Your task to perform on an android device: What's on my calendar tomorrow? Image 0: 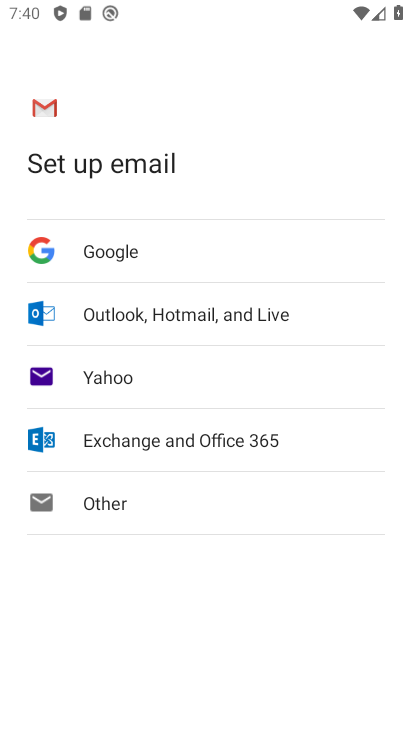
Step 0: press home button
Your task to perform on an android device: What's on my calendar tomorrow? Image 1: 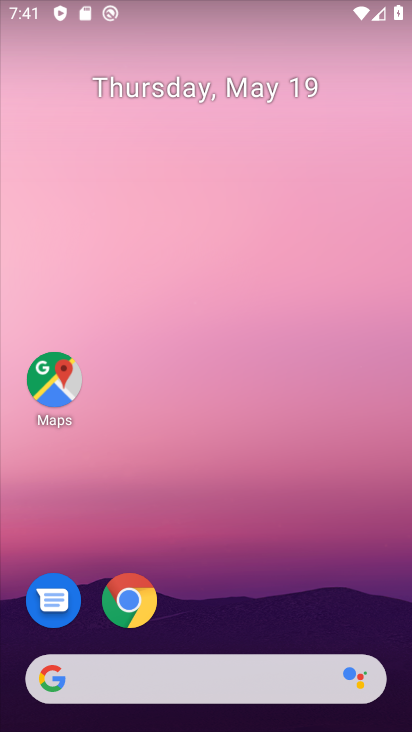
Step 1: drag from (249, 594) to (216, 27)
Your task to perform on an android device: What's on my calendar tomorrow? Image 2: 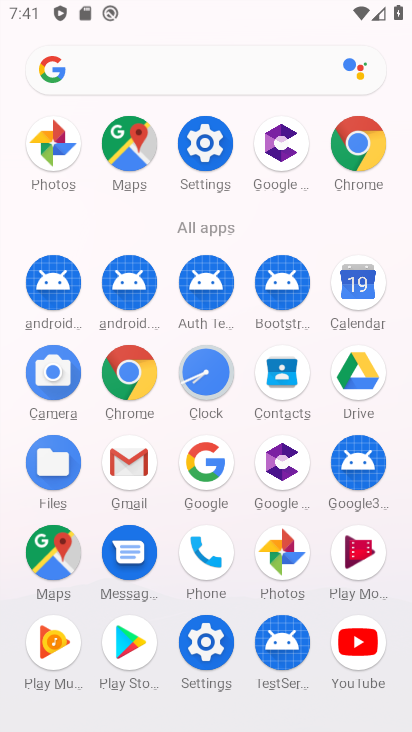
Step 2: click (334, 296)
Your task to perform on an android device: What's on my calendar tomorrow? Image 3: 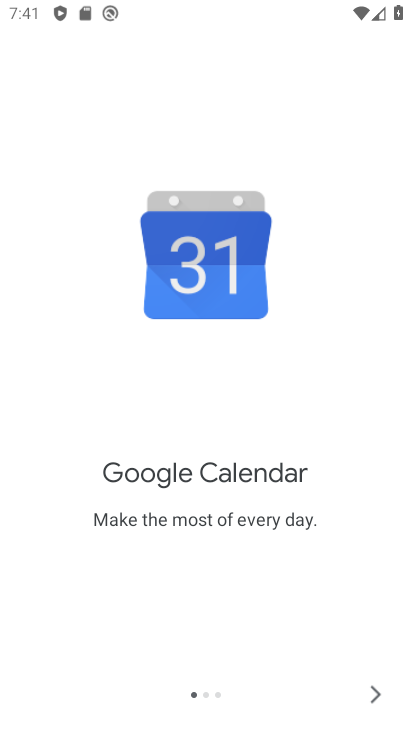
Step 3: click (383, 693)
Your task to perform on an android device: What's on my calendar tomorrow? Image 4: 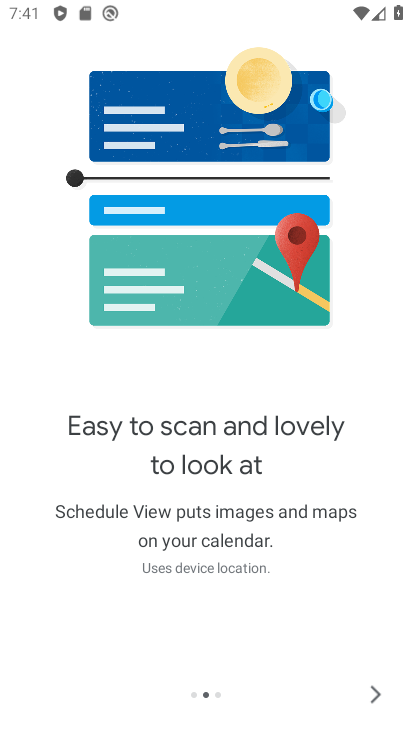
Step 4: click (383, 693)
Your task to perform on an android device: What's on my calendar tomorrow? Image 5: 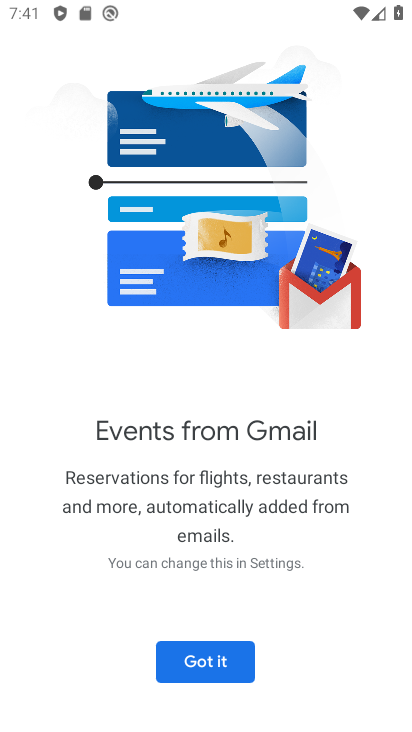
Step 5: click (383, 693)
Your task to perform on an android device: What's on my calendar tomorrow? Image 6: 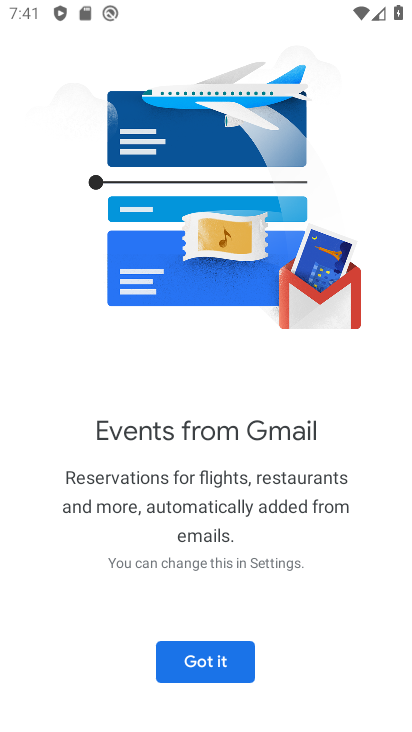
Step 6: click (222, 680)
Your task to perform on an android device: What's on my calendar tomorrow? Image 7: 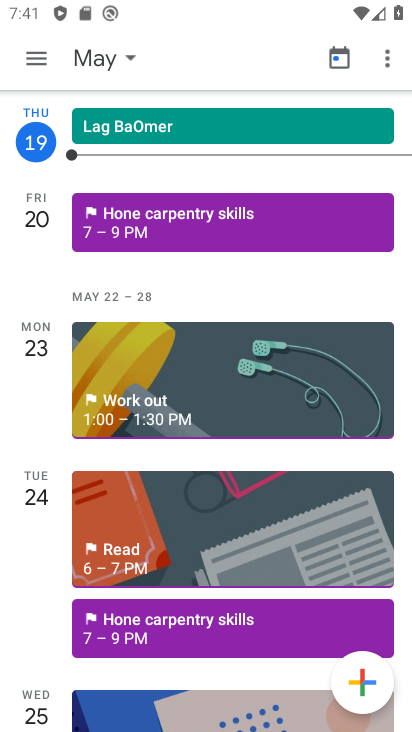
Step 7: click (35, 55)
Your task to perform on an android device: What's on my calendar tomorrow? Image 8: 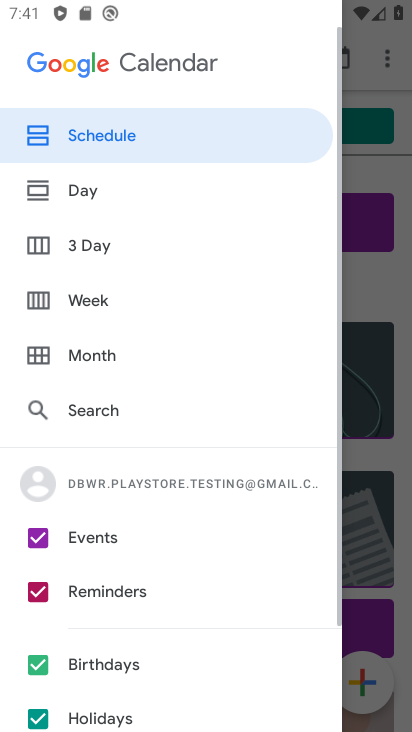
Step 8: click (56, 152)
Your task to perform on an android device: What's on my calendar tomorrow? Image 9: 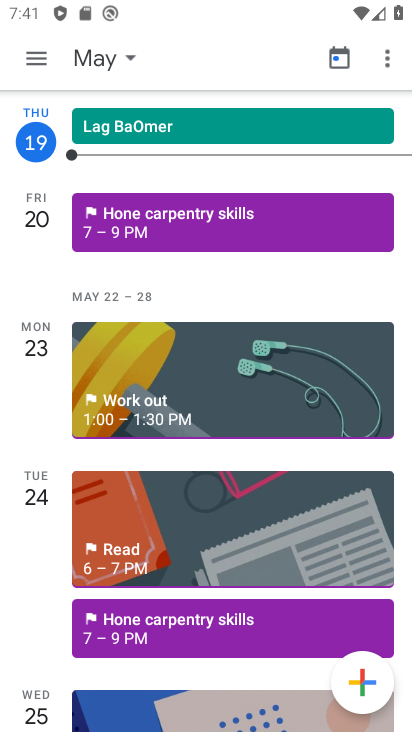
Step 9: click (100, 73)
Your task to perform on an android device: What's on my calendar tomorrow? Image 10: 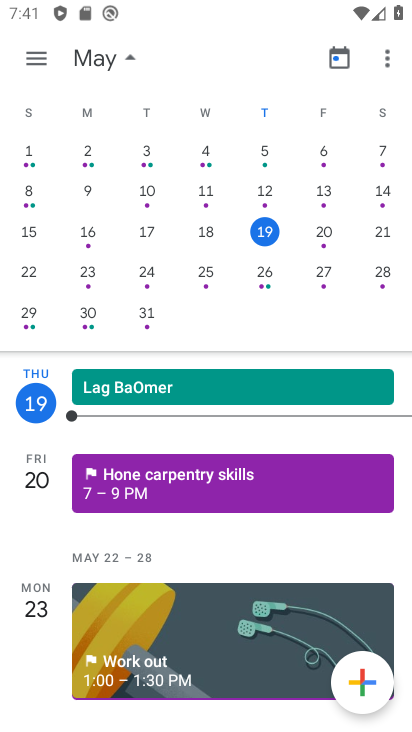
Step 10: task complete